Your task to perform on an android device: Open Google Image 0: 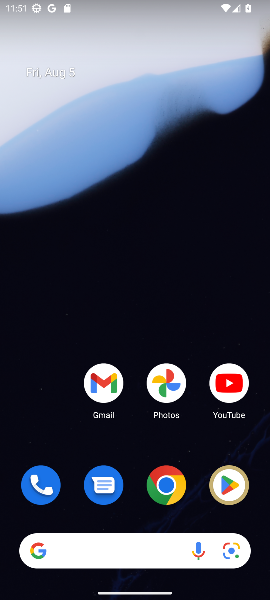
Step 0: click (37, 548)
Your task to perform on an android device: Open Google Image 1: 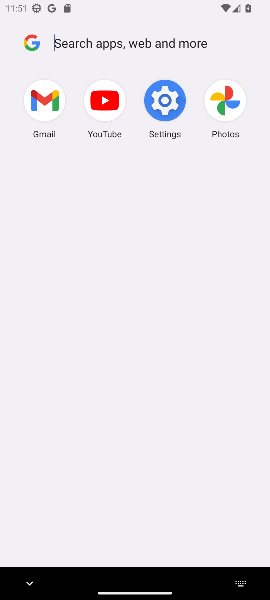
Step 1: click (30, 43)
Your task to perform on an android device: Open Google Image 2: 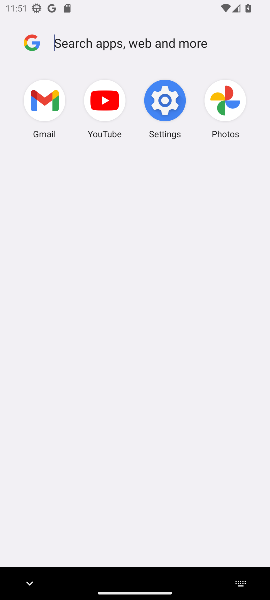
Step 2: click (32, 41)
Your task to perform on an android device: Open Google Image 3: 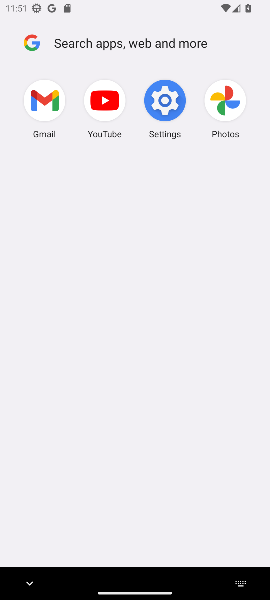
Step 3: click (32, 41)
Your task to perform on an android device: Open Google Image 4: 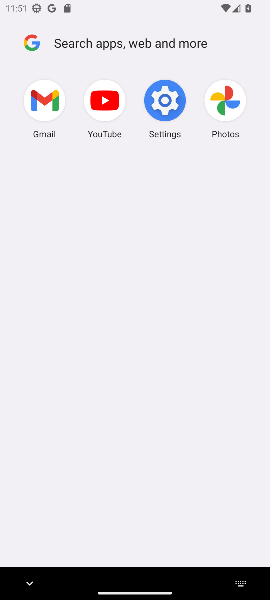
Step 4: click (32, 41)
Your task to perform on an android device: Open Google Image 5: 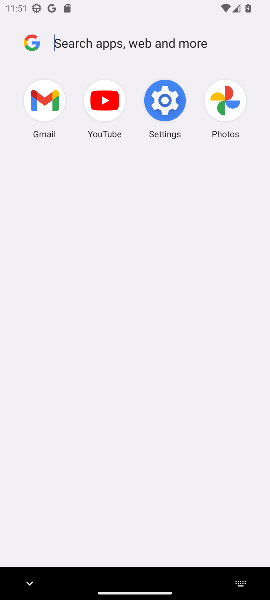
Step 5: click (76, 44)
Your task to perform on an android device: Open Google Image 6: 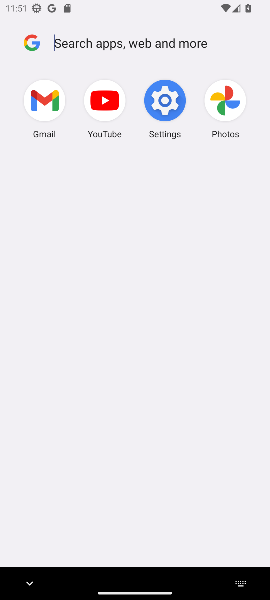
Step 6: task complete